Your task to perform on an android device: Open Youtube and go to the subscriptions tab Image 0: 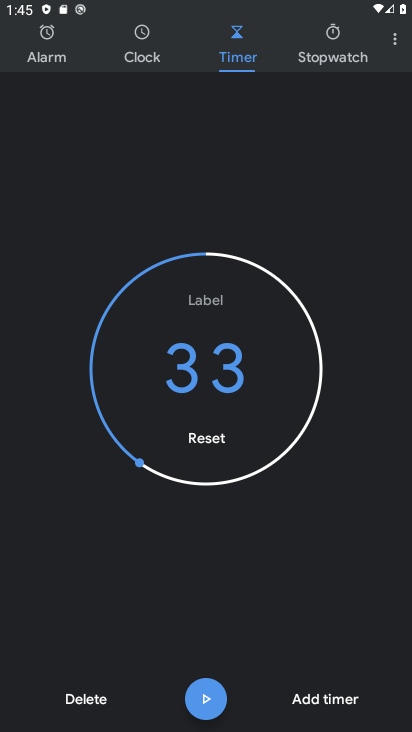
Step 0: press back button
Your task to perform on an android device: Open Youtube and go to the subscriptions tab Image 1: 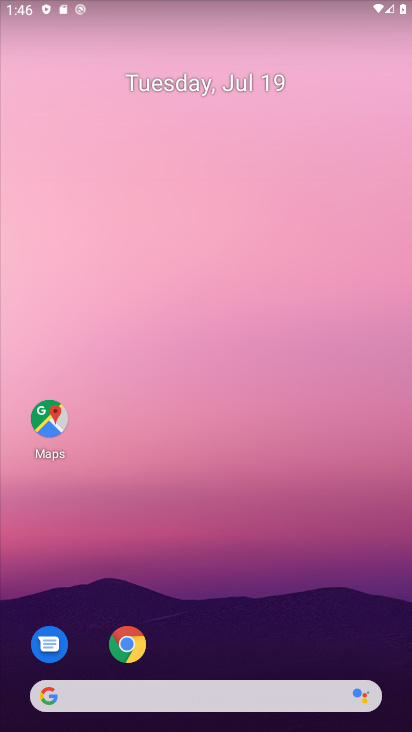
Step 1: drag from (206, 603) to (70, 135)
Your task to perform on an android device: Open Youtube and go to the subscriptions tab Image 2: 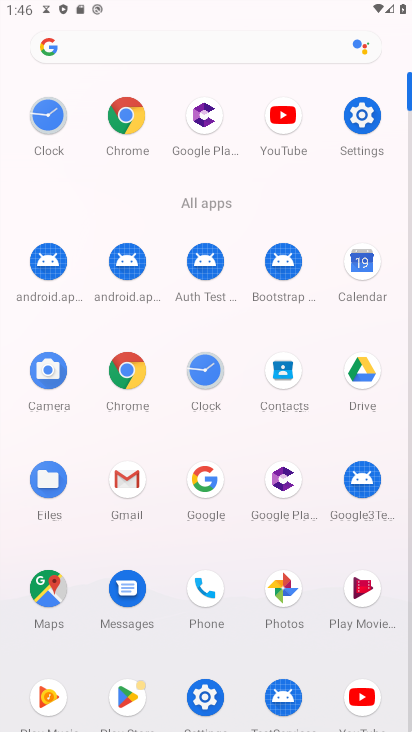
Step 2: click (359, 695)
Your task to perform on an android device: Open Youtube and go to the subscriptions tab Image 3: 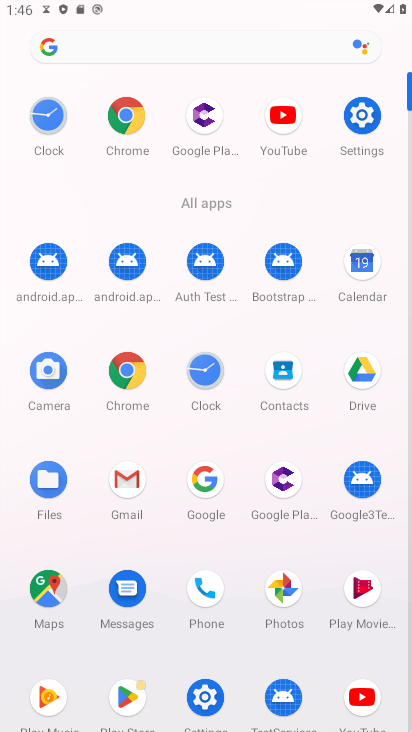
Step 3: click (359, 695)
Your task to perform on an android device: Open Youtube and go to the subscriptions tab Image 4: 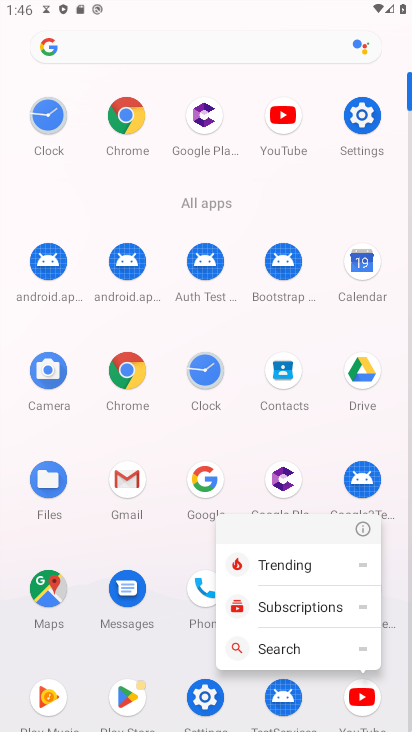
Step 4: click (293, 608)
Your task to perform on an android device: Open Youtube and go to the subscriptions tab Image 5: 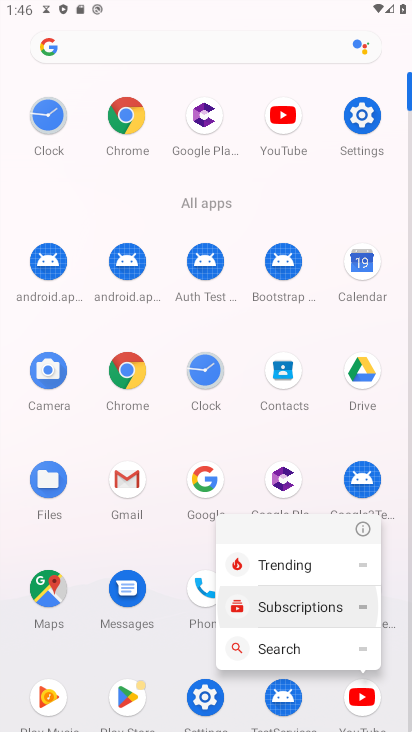
Step 5: click (293, 608)
Your task to perform on an android device: Open Youtube and go to the subscriptions tab Image 6: 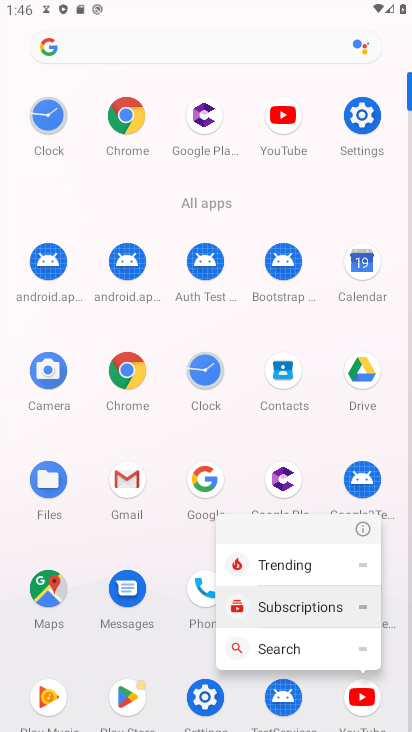
Step 6: click (295, 609)
Your task to perform on an android device: Open Youtube and go to the subscriptions tab Image 7: 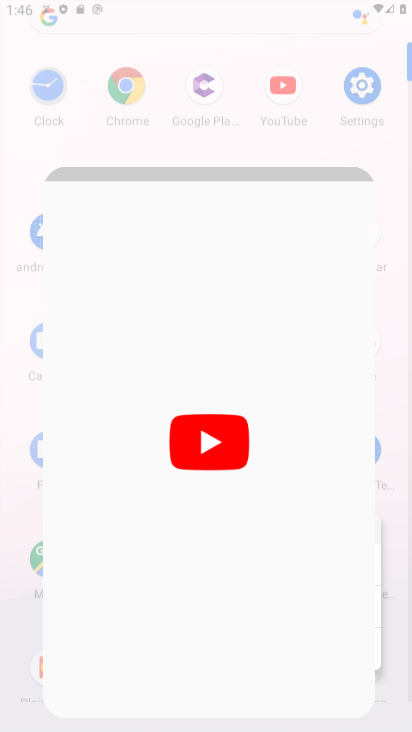
Step 7: click (296, 610)
Your task to perform on an android device: Open Youtube and go to the subscriptions tab Image 8: 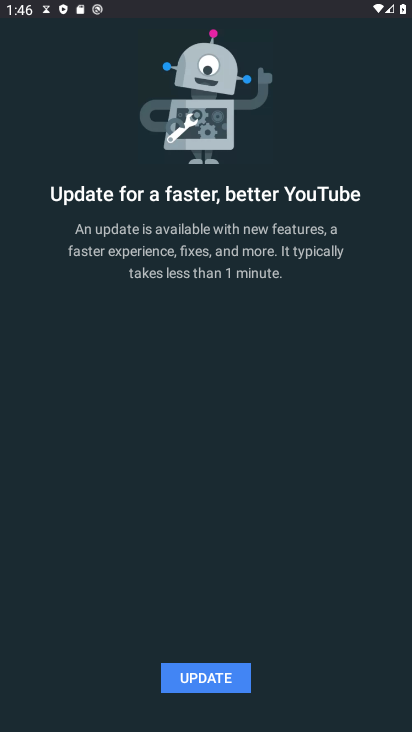
Step 8: task complete